Your task to perform on an android device: turn off translation in the chrome app Image 0: 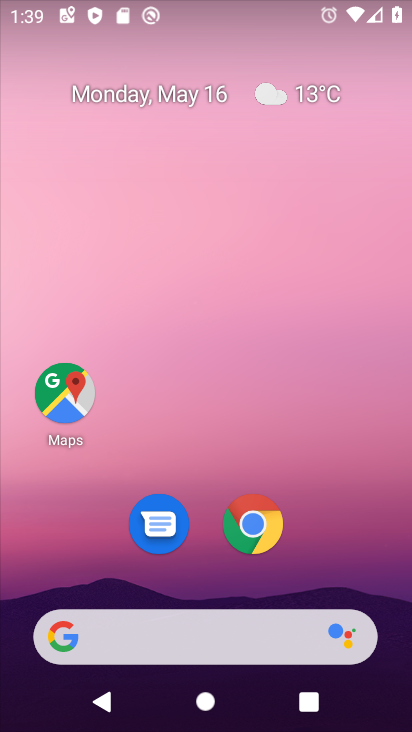
Step 0: click (262, 539)
Your task to perform on an android device: turn off translation in the chrome app Image 1: 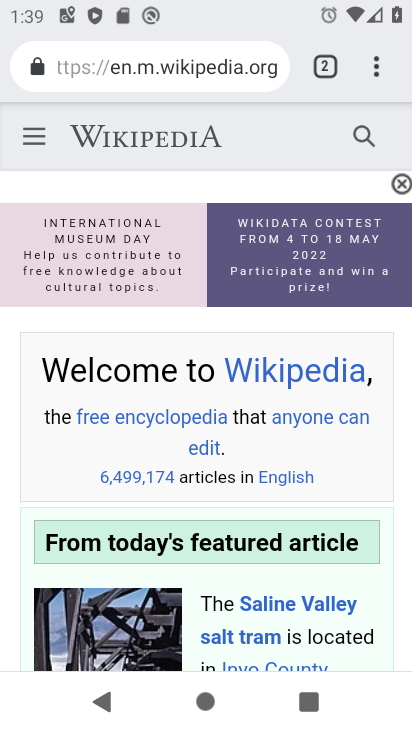
Step 1: click (376, 54)
Your task to perform on an android device: turn off translation in the chrome app Image 2: 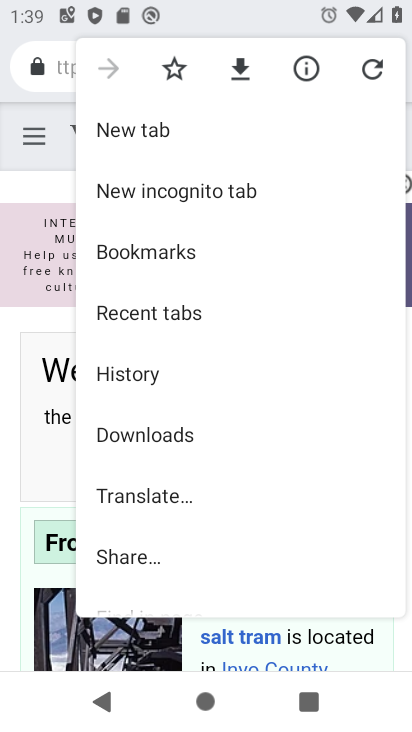
Step 2: drag from (181, 468) to (208, 207)
Your task to perform on an android device: turn off translation in the chrome app Image 3: 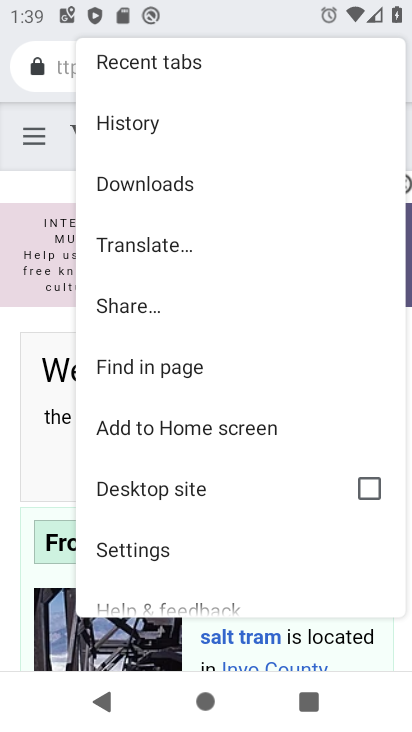
Step 3: click (164, 546)
Your task to perform on an android device: turn off translation in the chrome app Image 4: 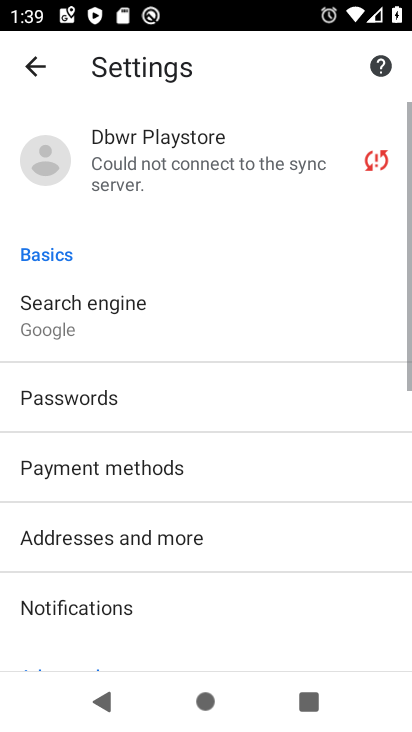
Step 4: drag from (246, 536) to (251, 206)
Your task to perform on an android device: turn off translation in the chrome app Image 5: 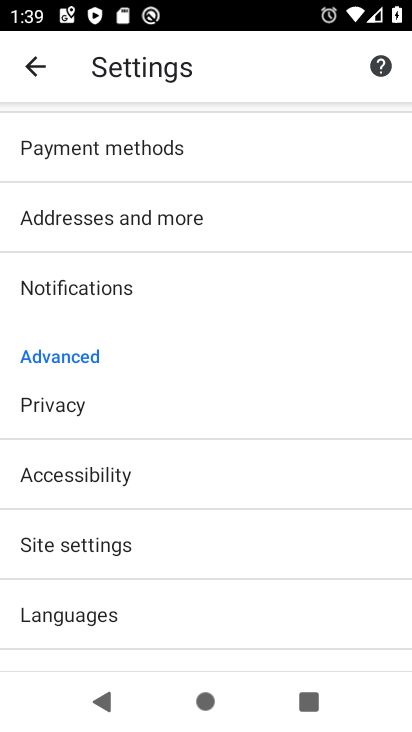
Step 5: click (192, 607)
Your task to perform on an android device: turn off translation in the chrome app Image 6: 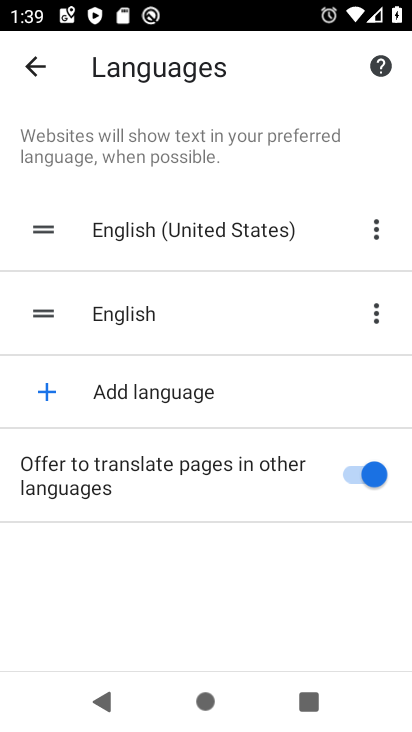
Step 6: click (348, 465)
Your task to perform on an android device: turn off translation in the chrome app Image 7: 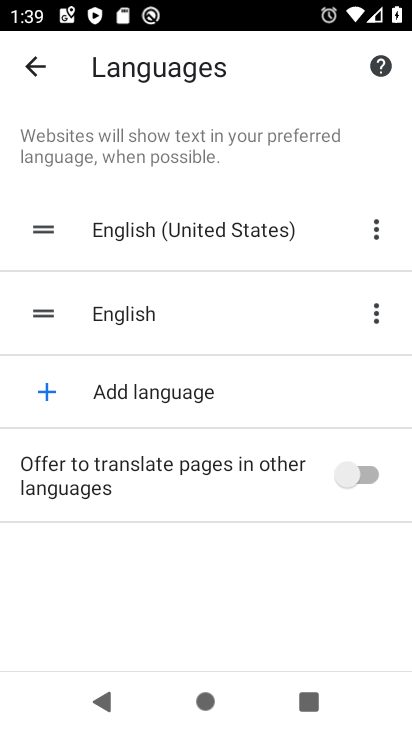
Step 7: task complete